Your task to perform on an android device: delete location history Image 0: 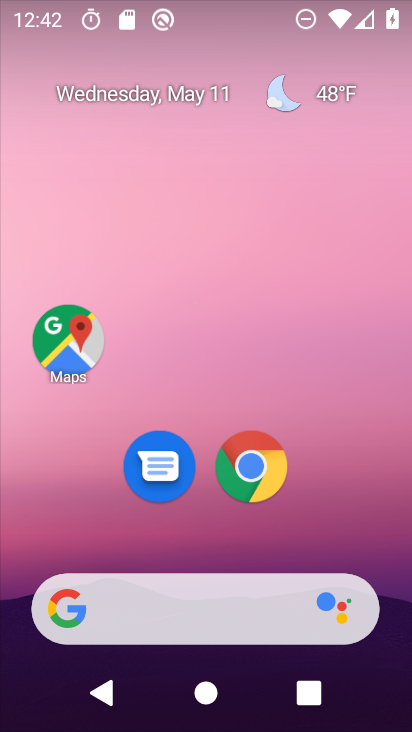
Step 0: drag from (202, 542) to (249, 55)
Your task to perform on an android device: delete location history Image 1: 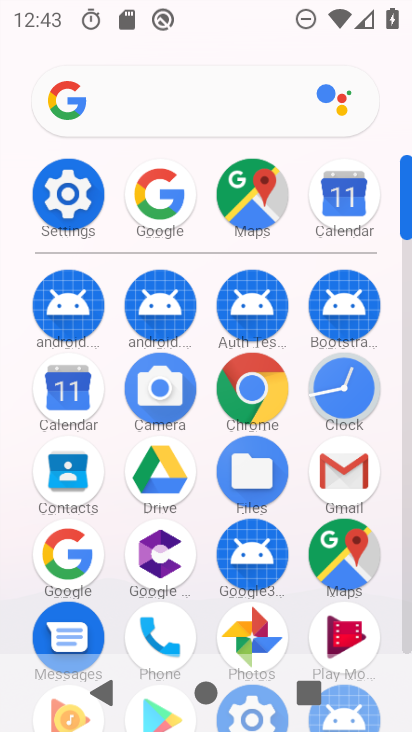
Step 1: click (249, 186)
Your task to perform on an android device: delete location history Image 2: 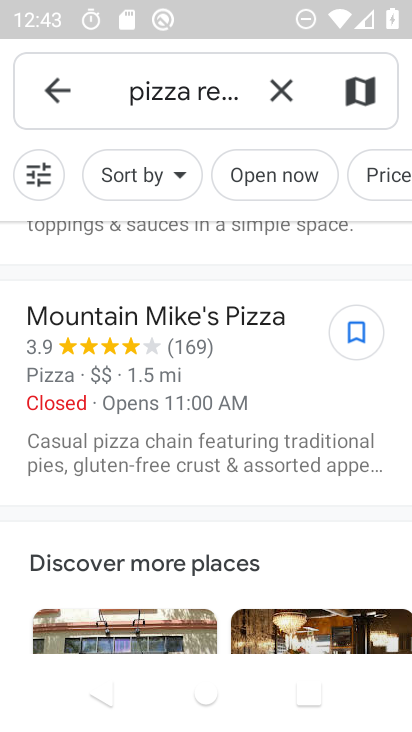
Step 2: click (61, 97)
Your task to perform on an android device: delete location history Image 3: 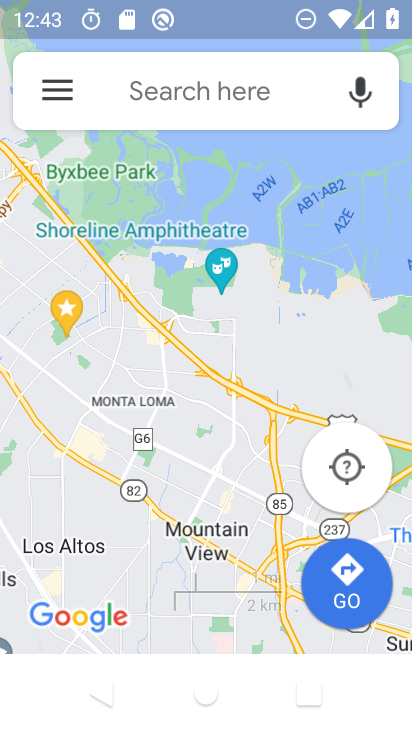
Step 3: click (48, 87)
Your task to perform on an android device: delete location history Image 4: 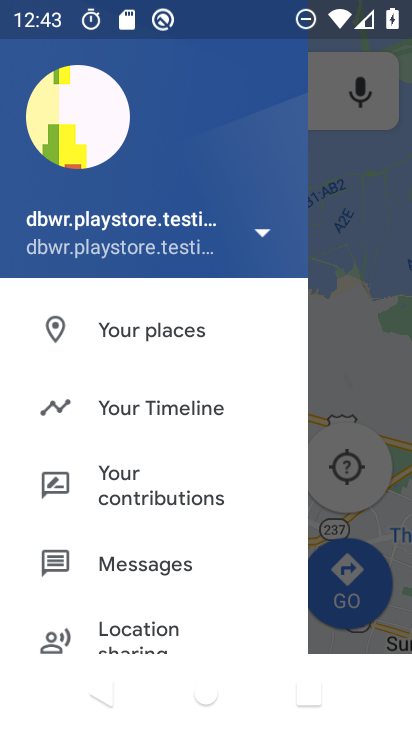
Step 4: drag from (163, 643) to (169, 155)
Your task to perform on an android device: delete location history Image 5: 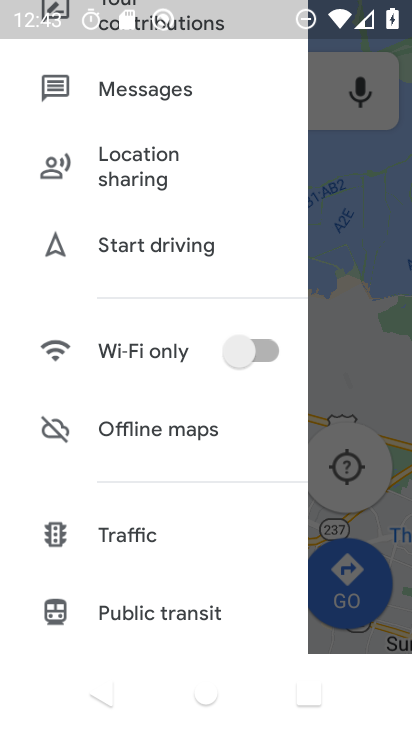
Step 5: drag from (159, 577) to (160, 147)
Your task to perform on an android device: delete location history Image 6: 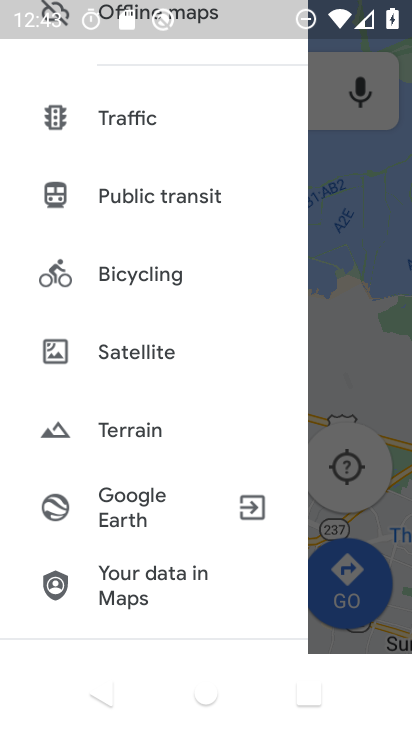
Step 6: drag from (153, 306) to (161, 627)
Your task to perform on an android device: delete location history Image 7: 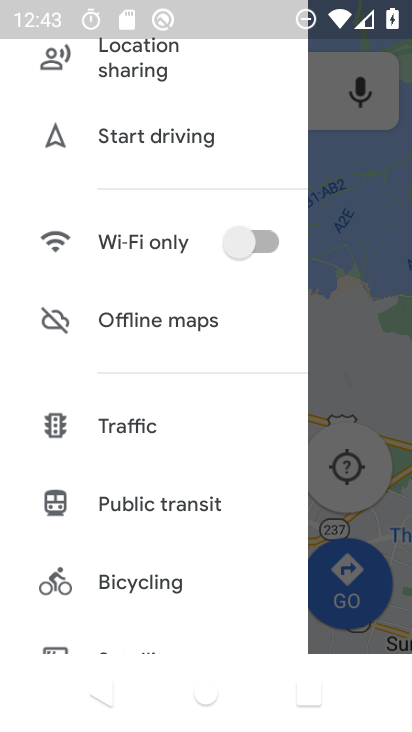
Step 7: drag from (152, 120) to (152, 632)
Your task to perform on an android device: delete location history Image 8: 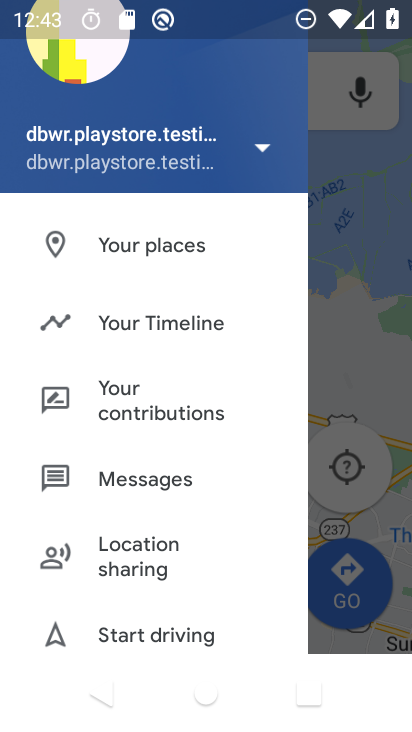
Step 8: click (82, 313)
Your task to perform on an android device: delete location history Image 9: 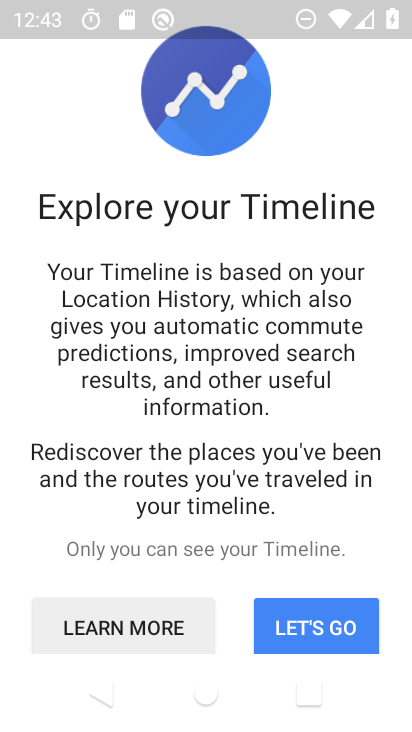
Step 9: click (315, 622)
Your task to perform on an android device: delete location history Image 10: 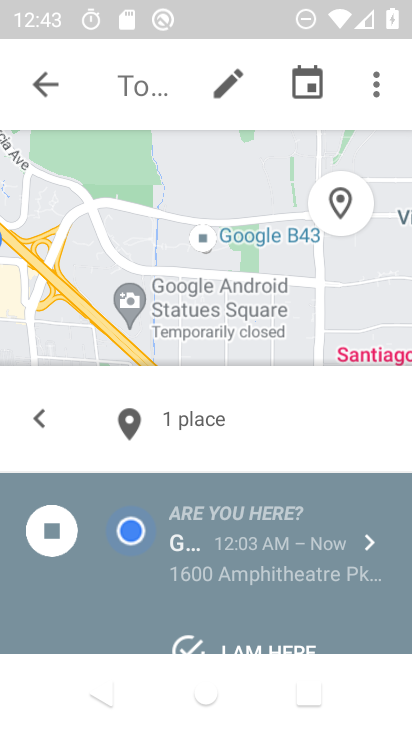
Step 10: click (375, 84)
Your task to perform on an android device: delete location history Image 11: 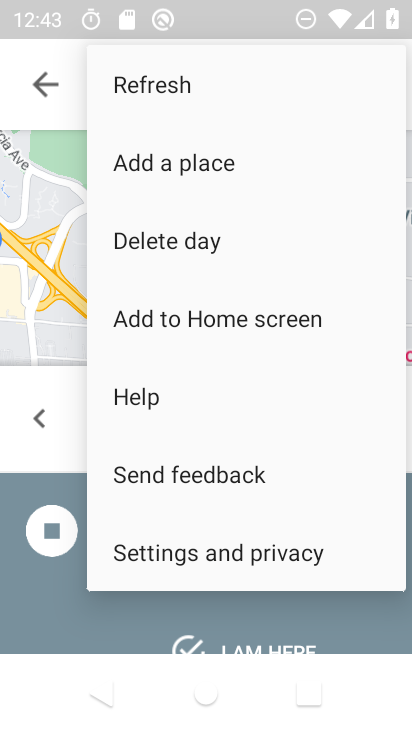
Step 11: click (336, 560)
Your task to perform on an android device: delete location history Image 12: 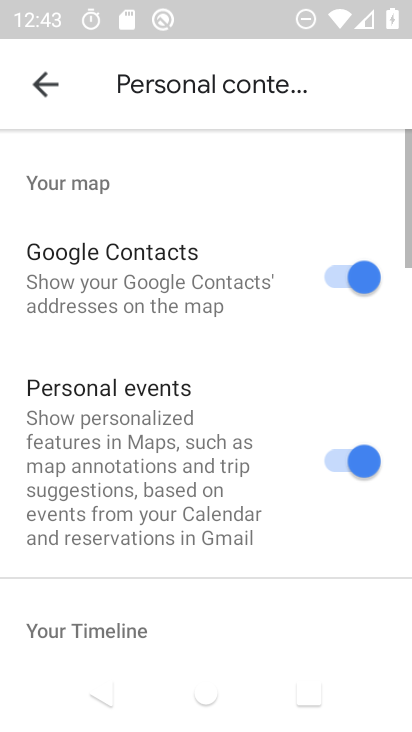
Step 12: drag from (246, 642) to (263, 132)
Your task to perform on an android device: delete location history Image 13: 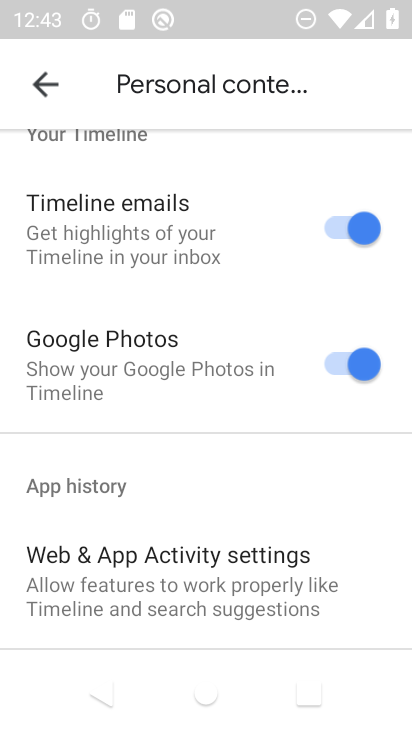
Step 13: drag from (197, 570) to (213, 185)
Your task to perform on an android device: delete location history Image 14: 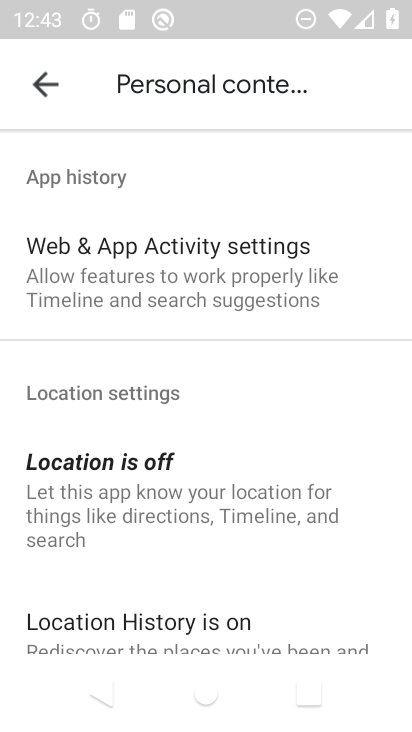
Step 14: drag from (191, 599) to (209, 141)
Your task to perform on an android device: delete location history Image 15: 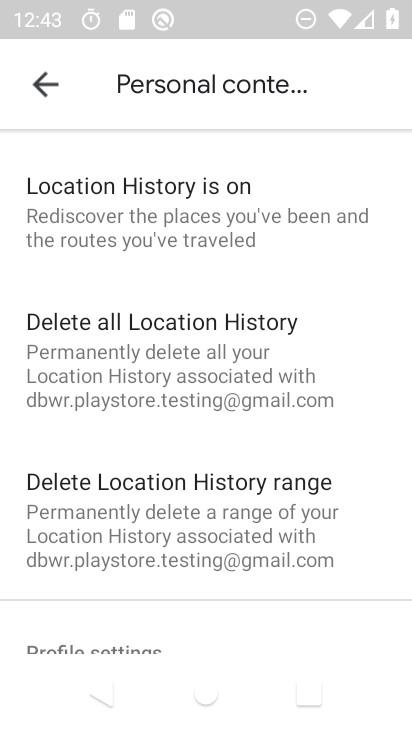
Step 15: click (218, 341)
Your task to perform on an android device: delete location history Image 16: 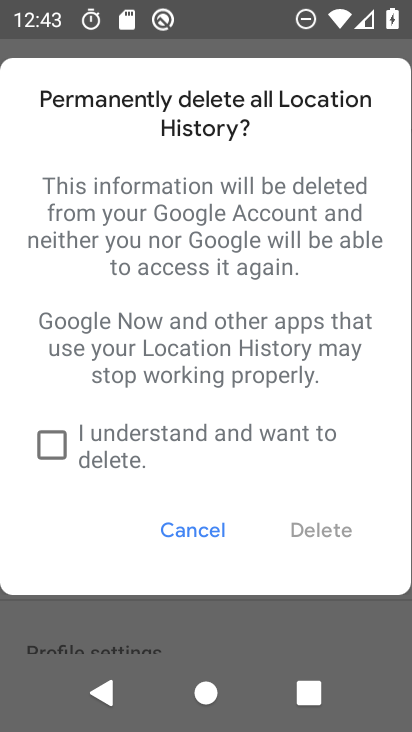
Step 16: click (38, 446)
Your task to perform on an android device: delete location history Image 17: 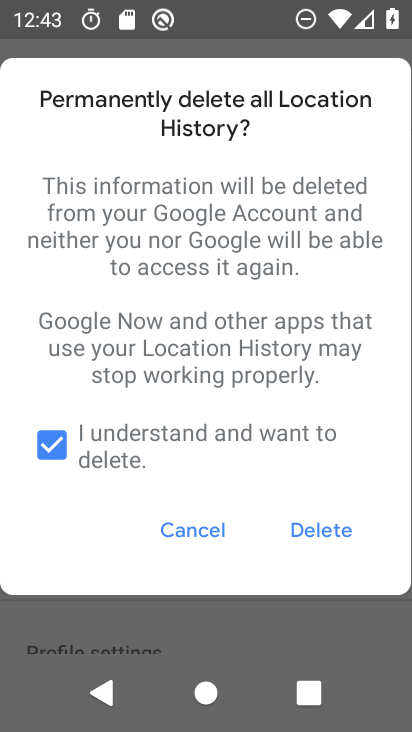
Step 17: click (321, 529)
Your task to perform on an android device: delete location history Image 18: 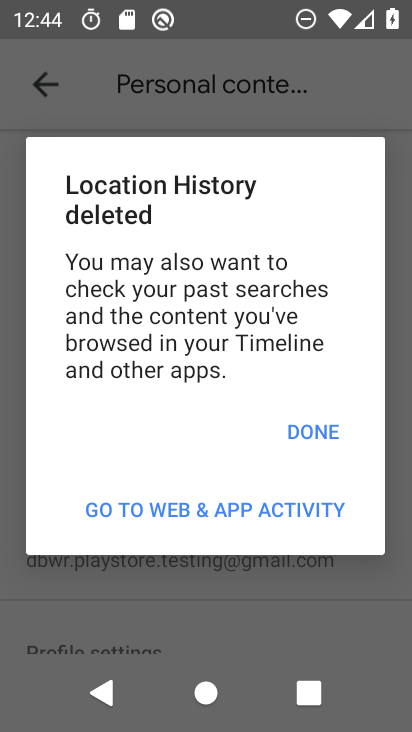
Step 18: click (306, 428)
Your task to perform on an android device: delete location history Image 19: 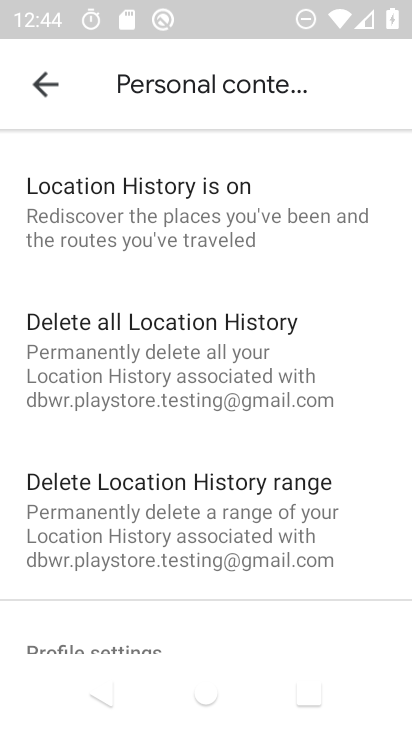
Step 19: task complete